Your task to perform on an android device: Show the shopping cart on ebay.com. Add lg ultragear to the cart on ebay.com Image 0: 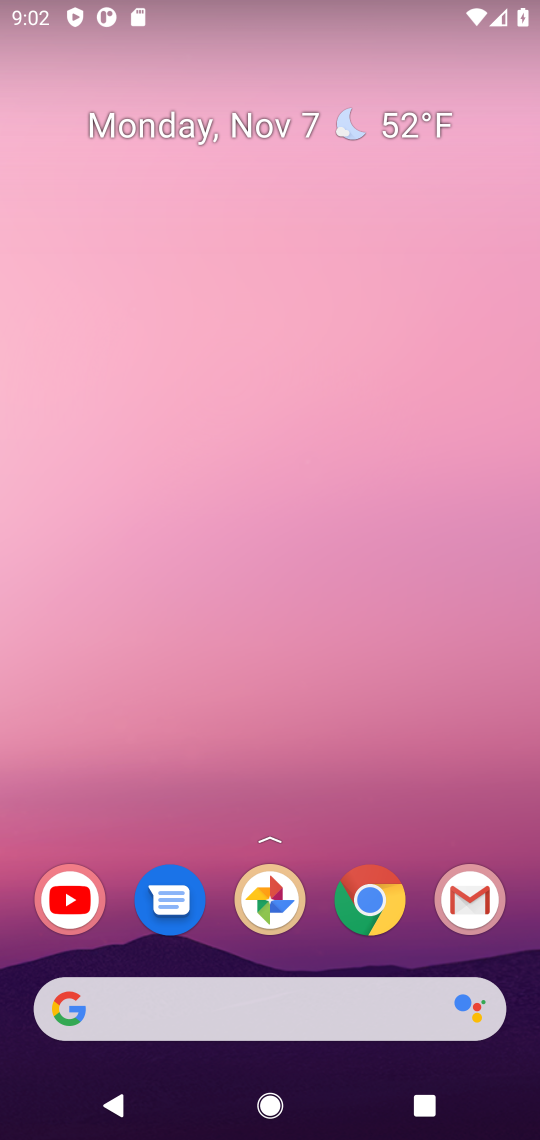
Step 0: click (330, 1031)
Your task to perform on an android device: Show the shopping cart on ebay.com. Add lg ultragear to the cart on ebay.com Image 1: 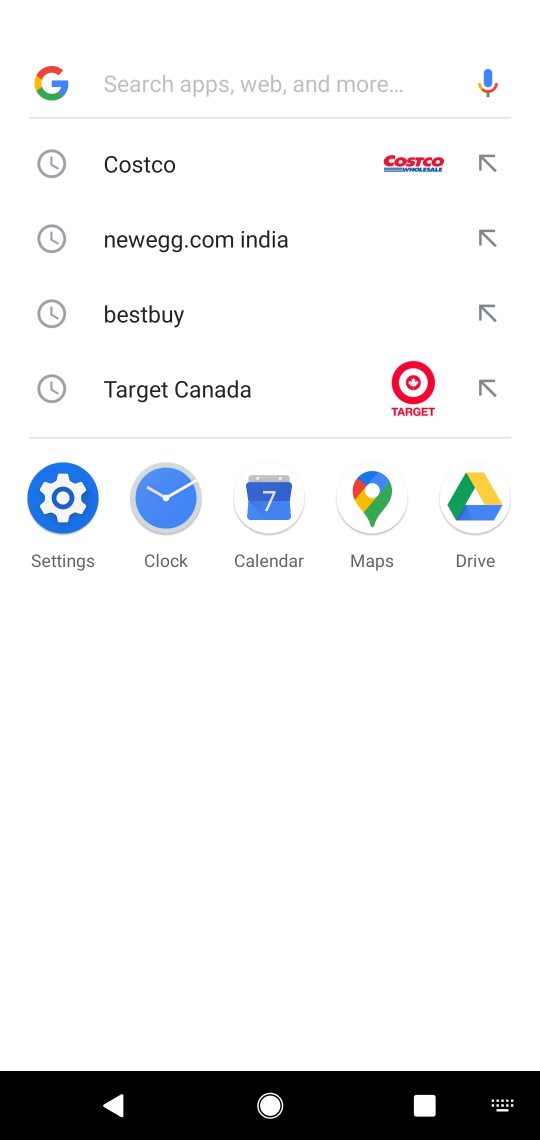
Step 1: type "ebay.com"
Your task to perform on an android device: Show the shopping cart on ebay.com. Add lg ultragear to the cart on ebay.com Image 2: 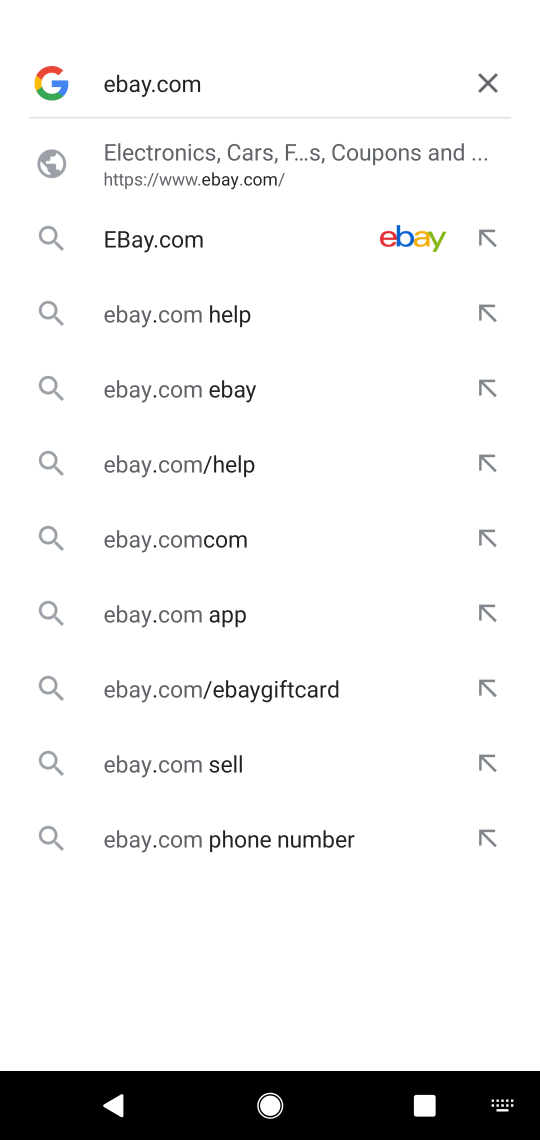
Step 2: click (268, 256)
Your task to perform on an android device: Show the shopping cart on ebay.com. Add lg ultragear to the cart on ebay.com Image 3: 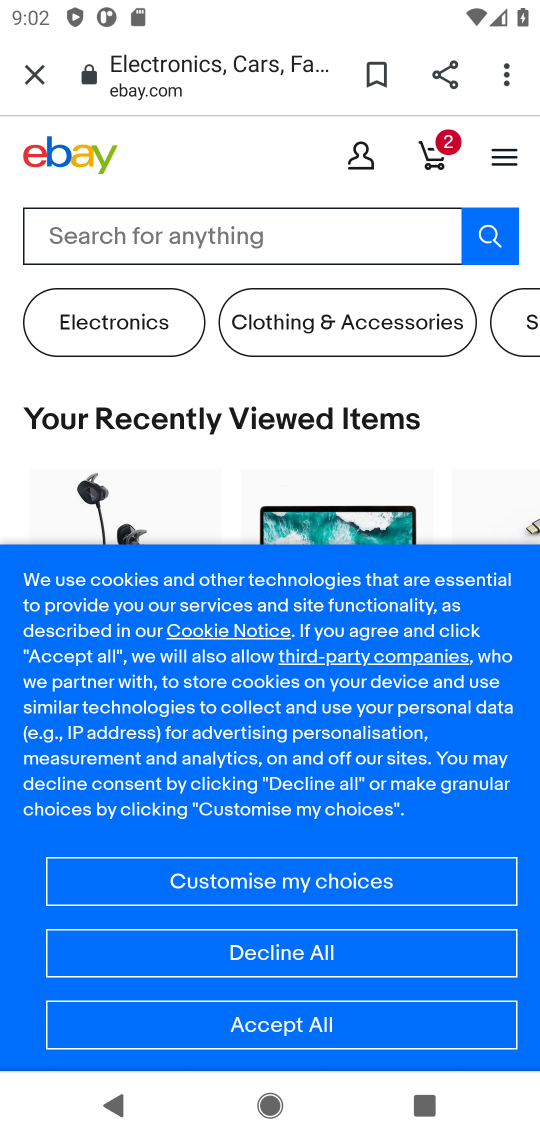
Step 3: task complete